Your task to perform on an android device: turn on wifi Image 0: 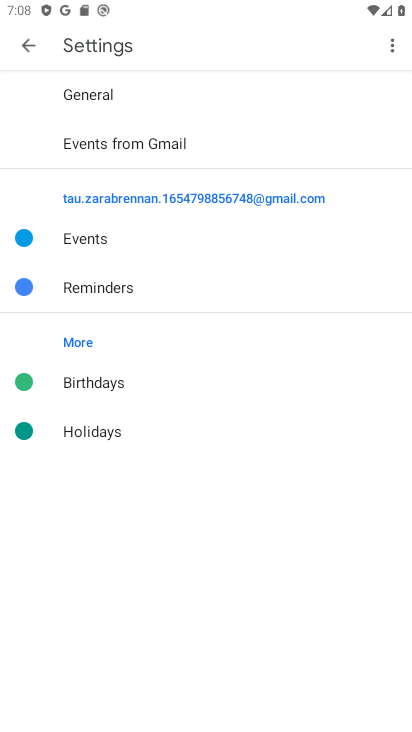
Step 0: press home button
Your task to perform on an android device: turn on wifi Image 1: 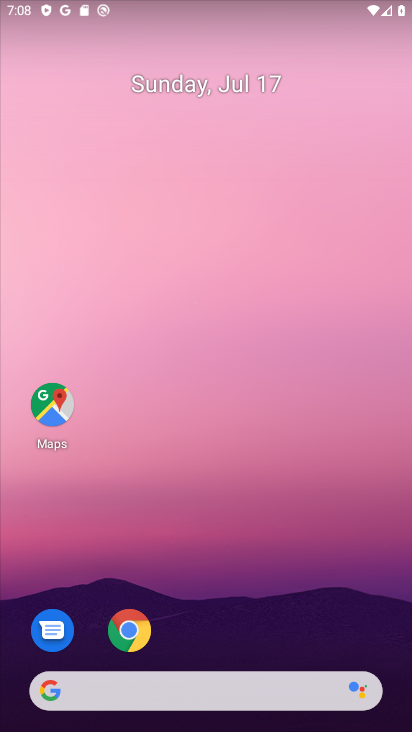
Step 1: drag from (204, 460) to (221, 58)
Your task to perform on an android device: turn on wifi Image 2: 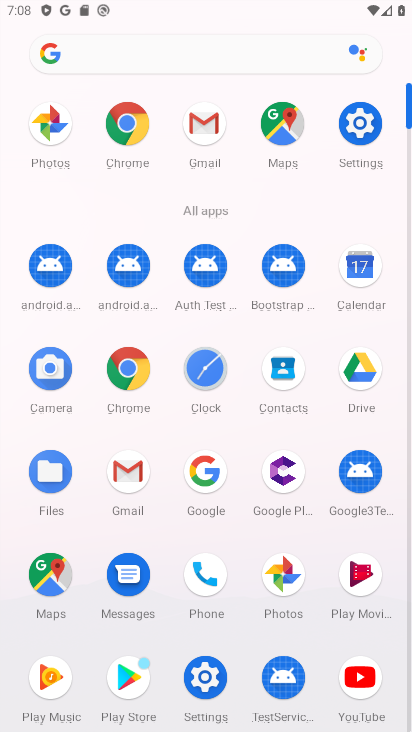
Step 2: click (343, 139)
Your task to perform on an android device: turn on wifi Image 3: 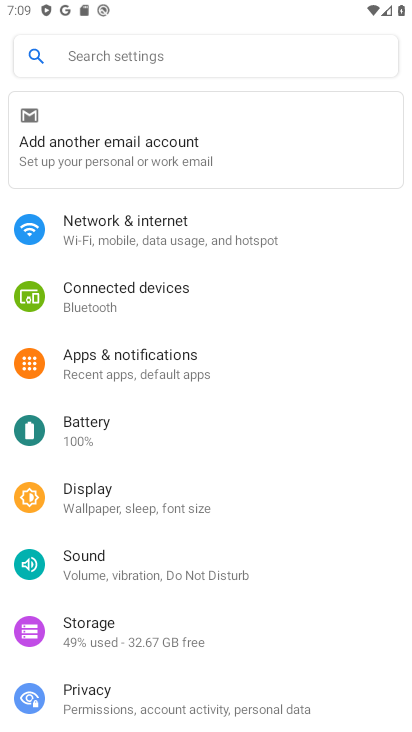
Step 3: click (157, 238)
Your task to perform on an android device: turn on wifi Image 4: 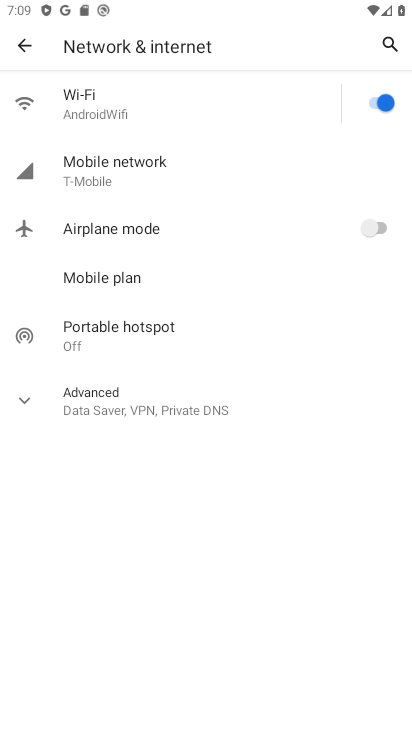
Step 4: task complete